Your task to perform on an android device: Open the Play Movies app and select the watchlist tab. Image 0: 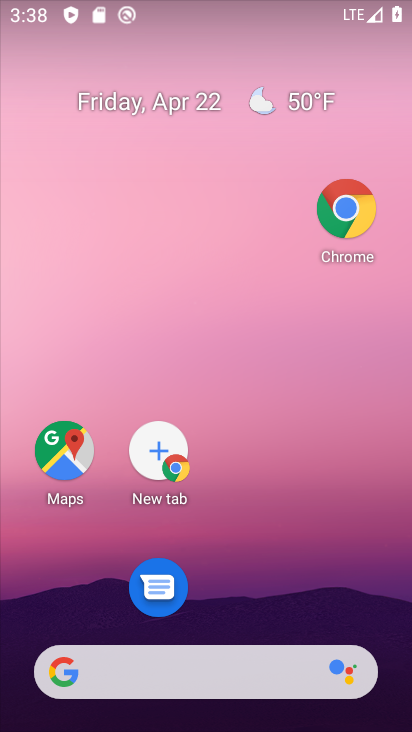
Step 0: click (77, 460)
Your task to perform on an android device: Open the Play Movies app and select the watchlist tab. Image 1: 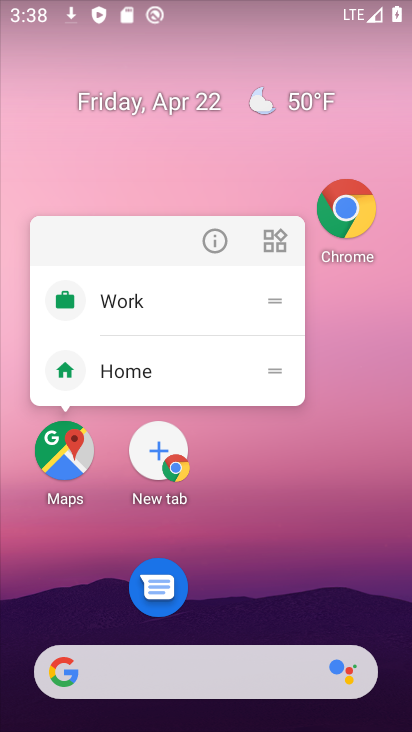
Step 1: click (310, 558)
Your task to perform on an android device: Open the Play Movies app and select the watchlist tab. Image 2: 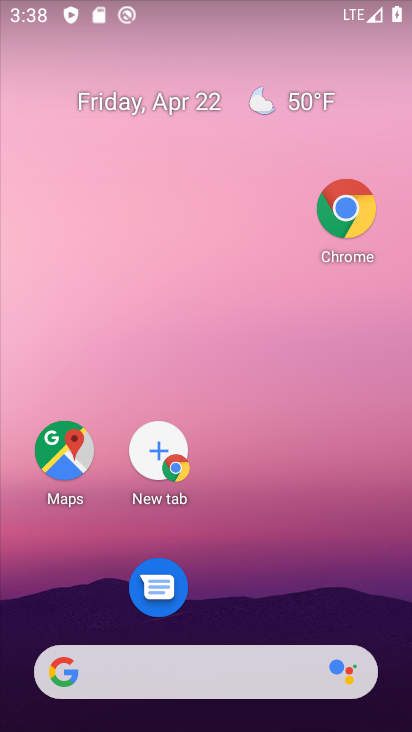
Step 2: drag from (242, 353) to (229, 1)
Your task to perform on an android device: Open the Play Movies app and select the watchlist tab. Image 3: 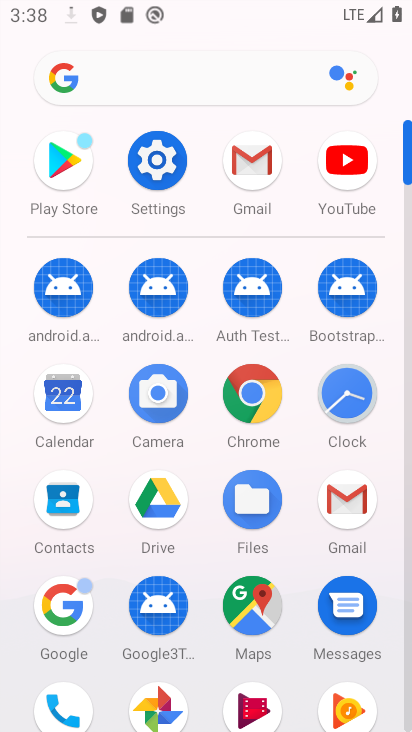
Step 3: click (259, 694)
Your task to perform on an android device: Open the Play Movies app and select the watchlist tab. Image 4: 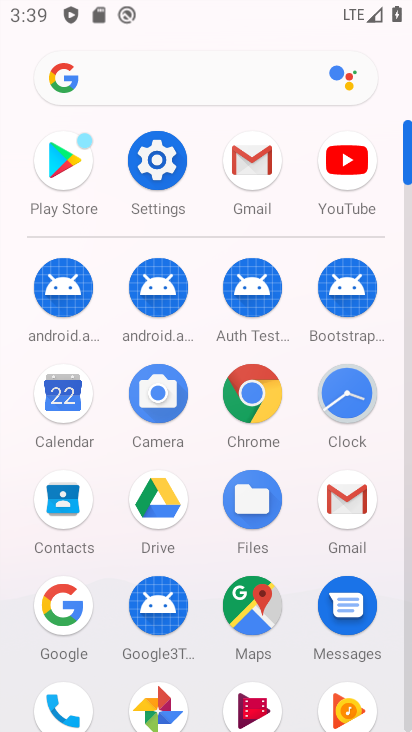
Step 4: click (247, 704)
Your task to perform on an android device: Open the Play Movies app and select the watchlist tab. Image 5: 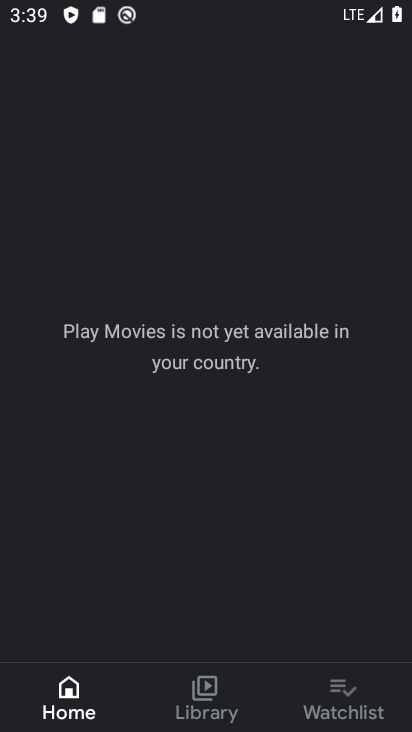
Step 5: click (363, 700)
Your task to perform on an android device: Open the Play Movies app and select the watchlist tab. Image 6: 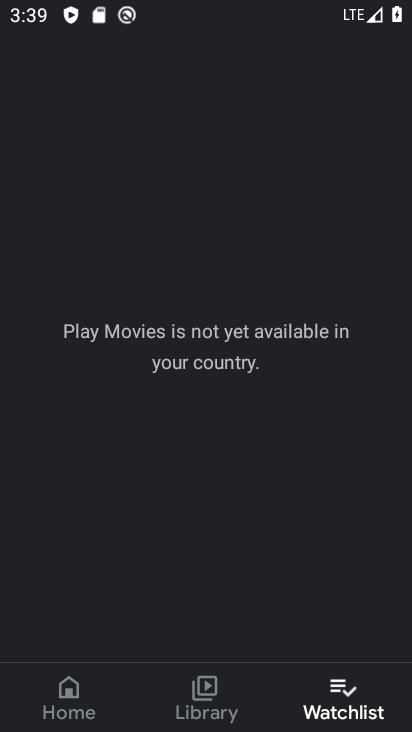
Step 6: task complete